Your task to perform on an android device: Go to privacy settings Image 0: 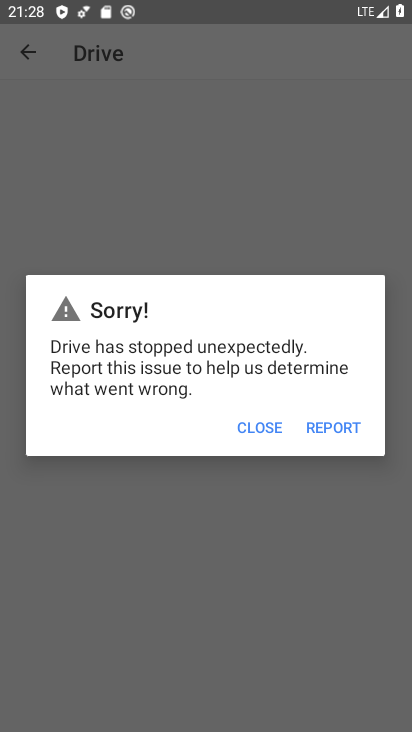
Step 0: click (58, 371)
Your task to perform on an android device: Go to privacy settings Image 1: 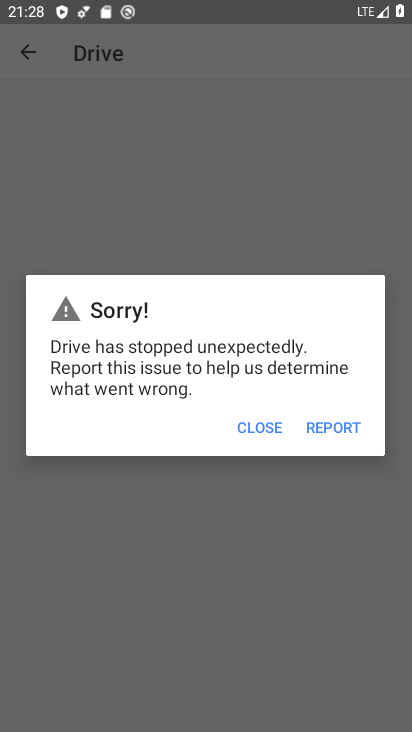
Step 1: drag from (247, 15) to (338, 692)
Your task to perform on an android device: Go to privacy settings Image 2: 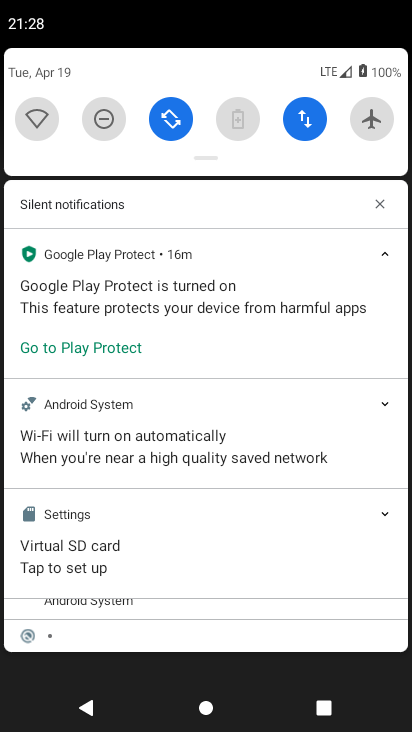
Step 2: drag from (201, 163) to (266, 726)
Your task to perform on an android device: Go to privacy settings Image 3: 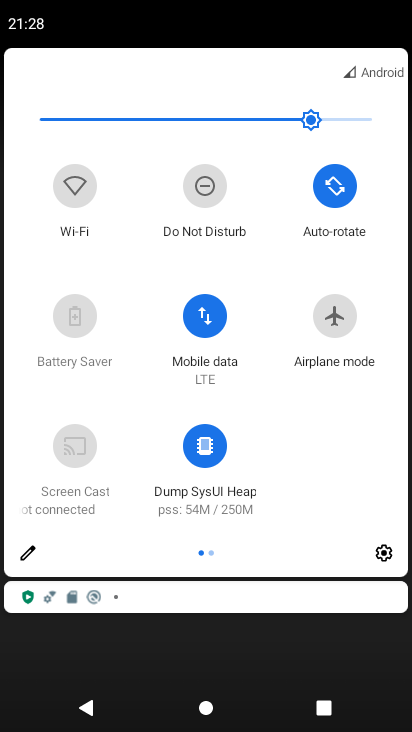
Step 3: click (380, 554)
Your task to perform on an android device: Go to privacy settings Image 4: 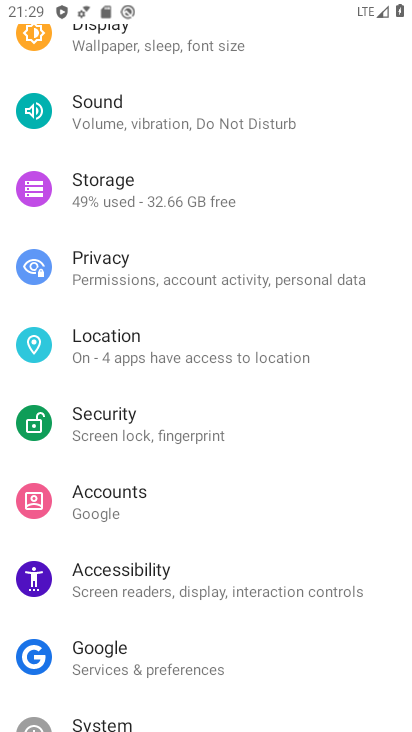
Step 4: drag from (216, 680) to (178, 84)
Your task to perform on an android device: Go to privacy settings Image 5: 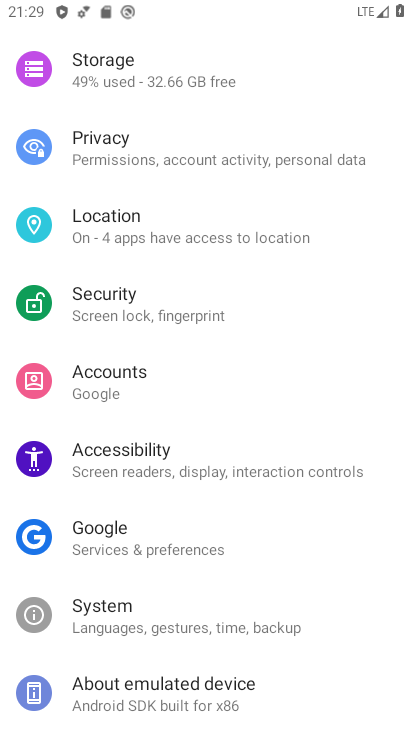
Step 5: drag from (164, 554) to (211, 44)
Your task to perform on an android device: Go to privacy settings Image 6: 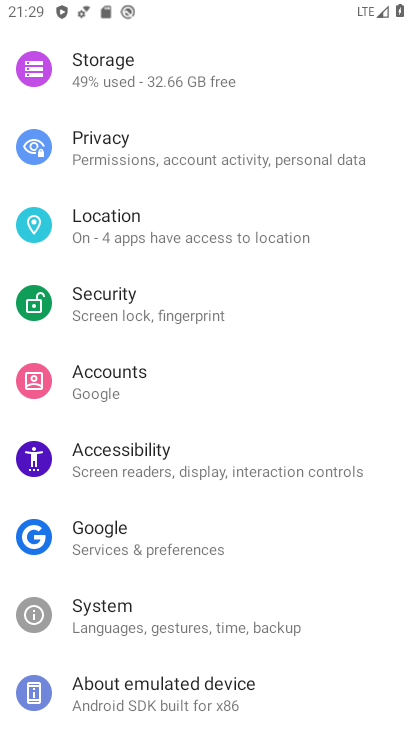
Step 6: click (224, 154)
Your task to perform on an android device: Go to privacy settings Image 7: 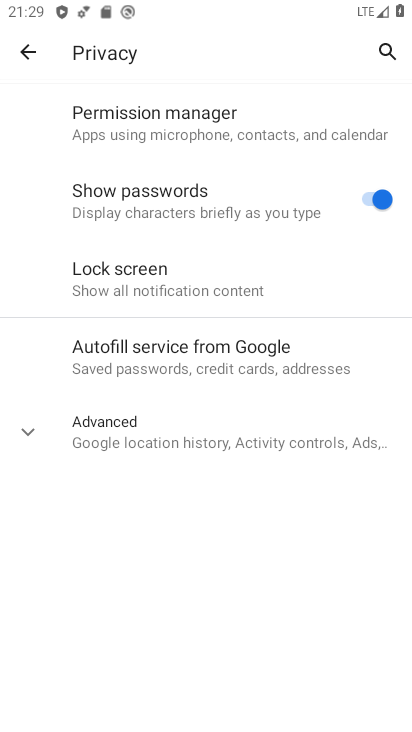
Step 7: task complete